Your task to perform on an android device: Open network settings Image 0: 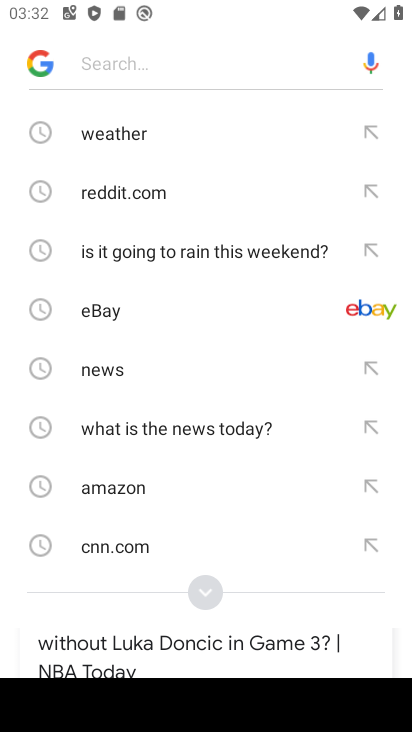
Step 0: press home button
Your task to perform on an android device: Open network settings Image 1: 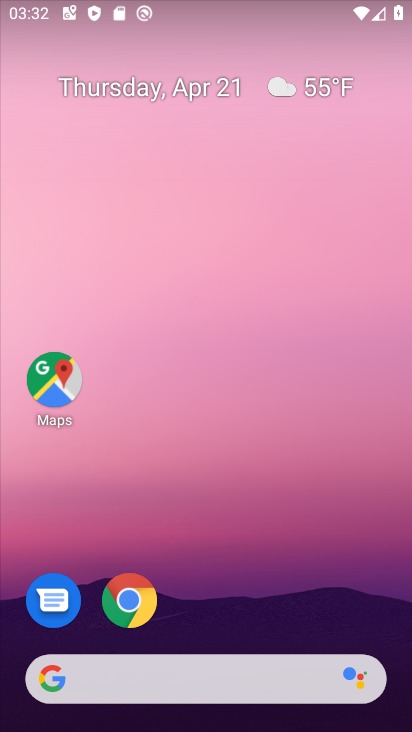
Step 1: drag from (207, 664) to (263, 106)
Your task to perform on an android device: Open network settings Image 2: 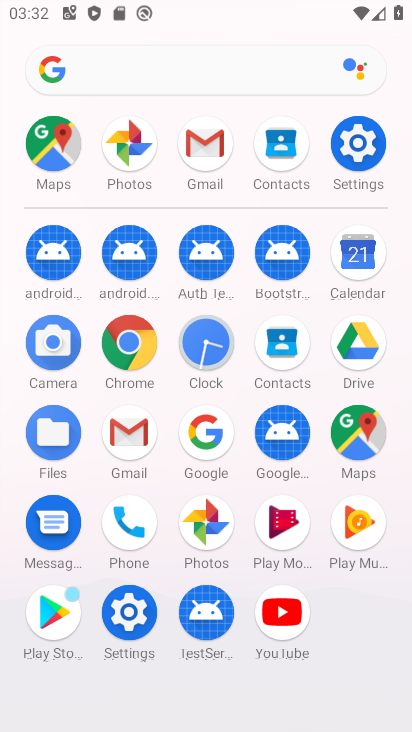
Step 2: click (361, 166)
Your task to perform on an android device: Open network settings Image 3: 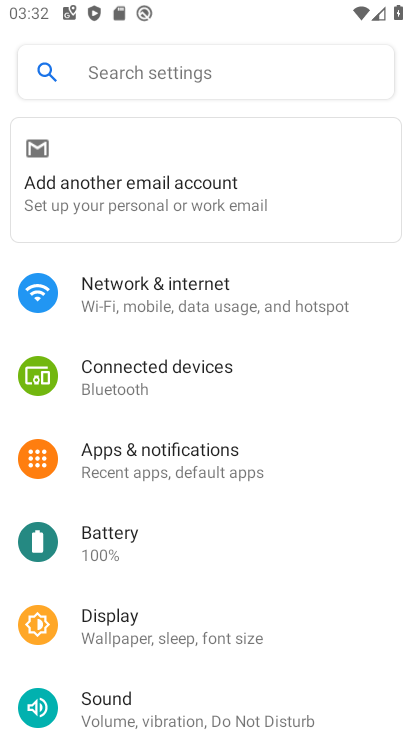
Step 3: click (212, 269)
Your task to perform on an android device: Open network settings Image 4: 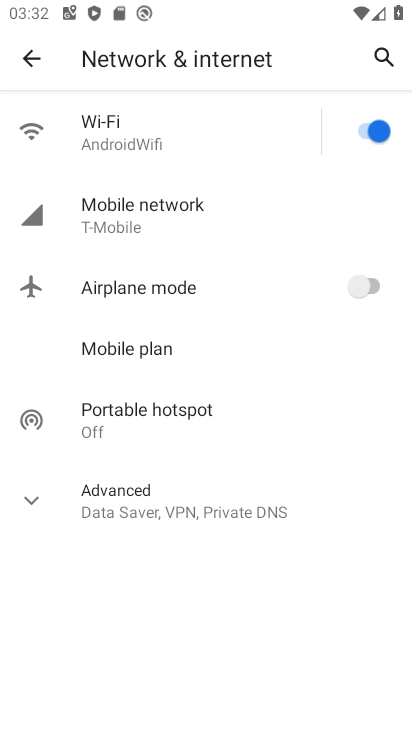
Step 4: click (72, 197)
Your task to perform on an android device: Open network settings Image 5: 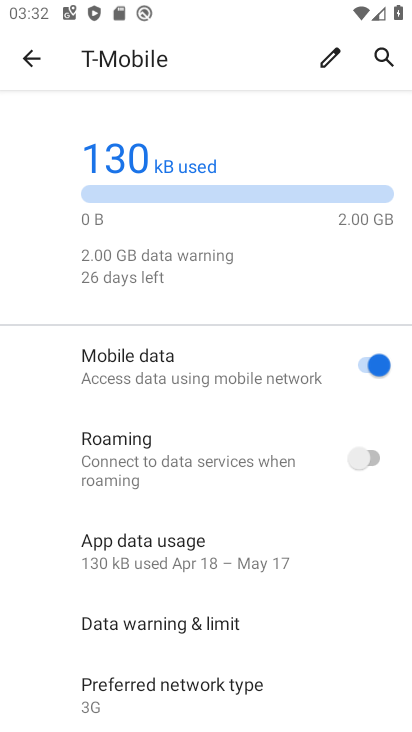
Step 5: task complete